Your task to perform on an android device: turn off javascript in the chrome app Image 0: 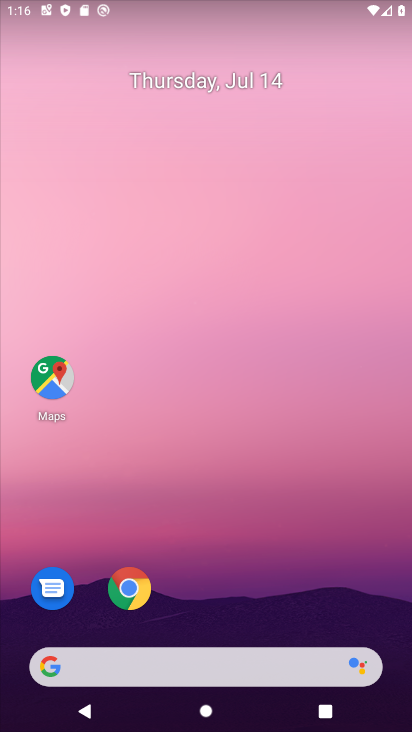
Step 0: click (126, 586)
Your task to perform on an android device: turn off javascript in the chrome app Image 1: 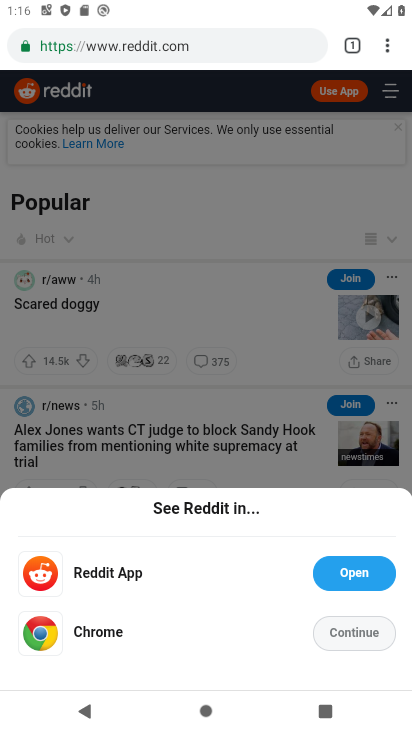
Step 1: click (391, 42)
Your task to perform on an android device: turn off javascript in the chrome app Image 2: 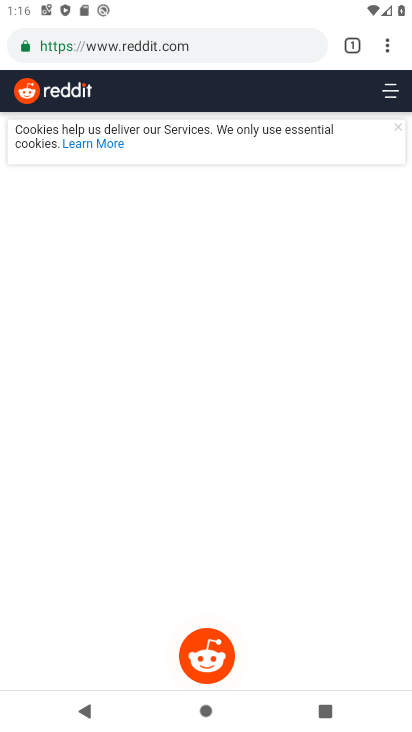
Step 2: click (388, 39)
Your task to perform on an android device: turn off javascript in the chrome app Image 3: 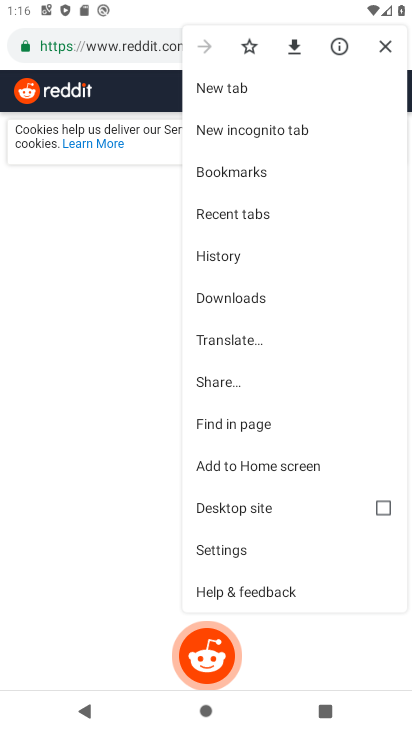
Step 3: click (257, 546)
Your task to perform on an android device: turn off javascript in the chrome app Image 4: 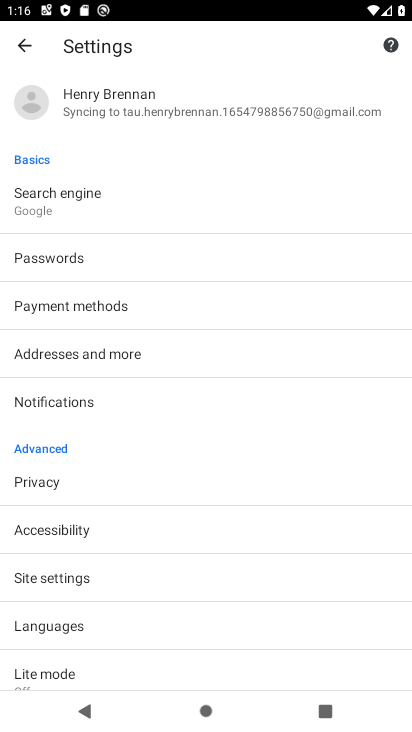
Step 4: click (100, 571)
Your task to perform on an android device: turn off javascript in the chrome app Image 5: 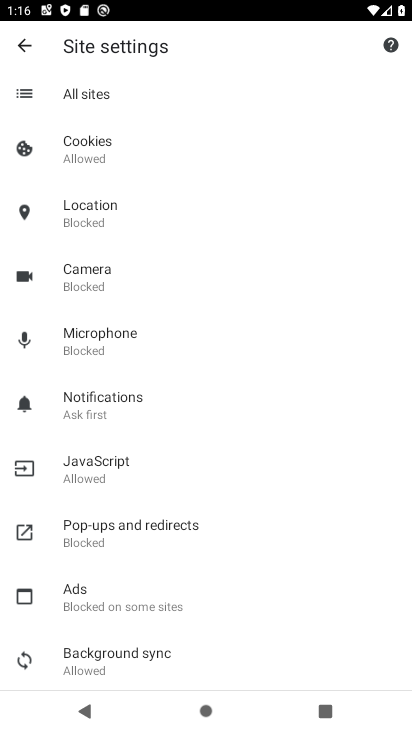
Step 5: click (138, 465)
Your task to perform on an android device: turn off javascript in the chrome app Image 6: 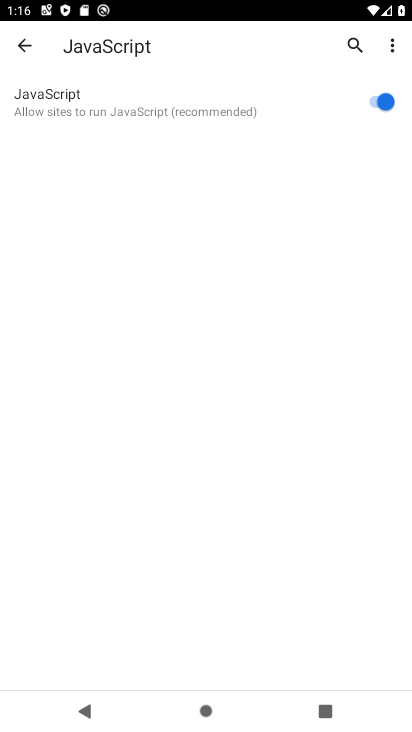
Step 6: click (382, 103)
Your task to perform on an android device: turn off javascript in the chrome app Image 7: 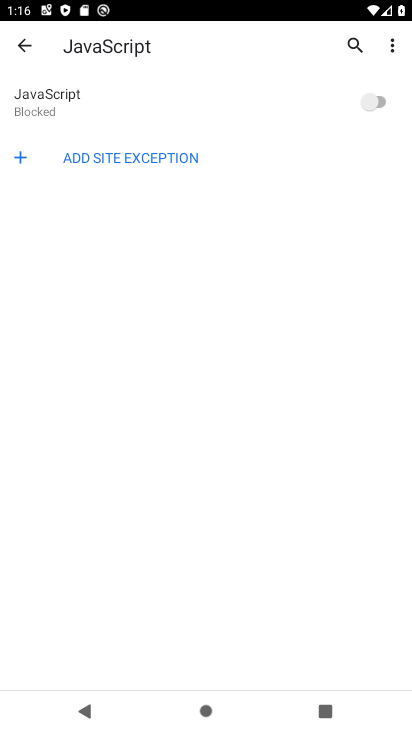
Step 7: task complete